Your task to perform on an android device: Set the phone to "Do not disturb". Image 0: 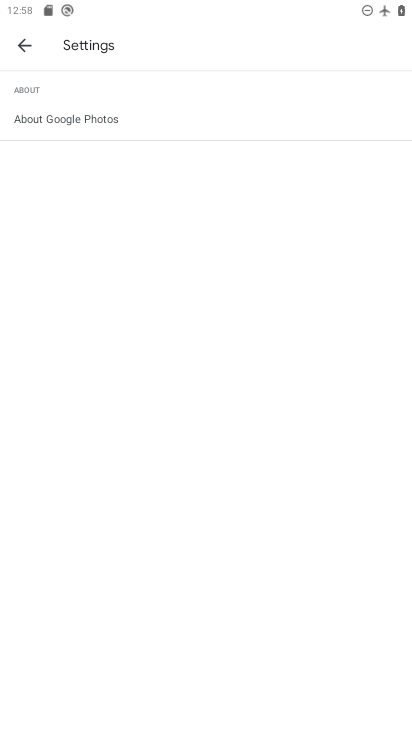
Step 0: press home button
Your task to perform on an android device: Set the phone to "Do not disturb". Image 1: 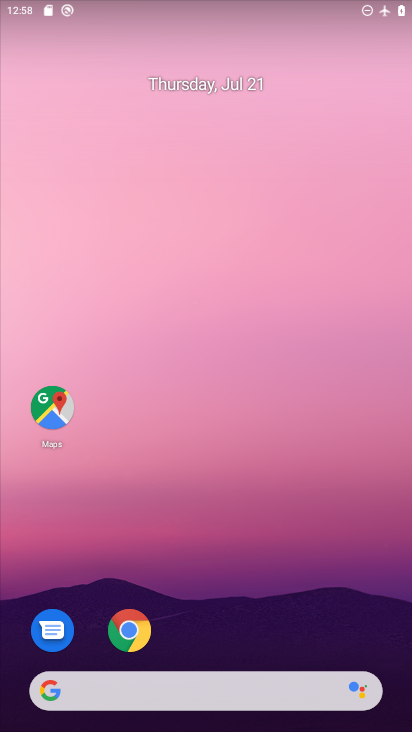
Step 1: drag from (397, 647) to (393, 208)
Your task to perform on an android device: Set the phone to "Do not disturb". Image 2: 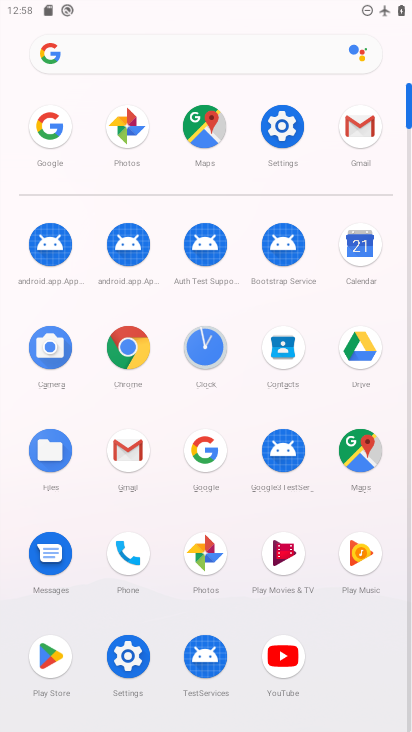
Step 2: click (270, 137)
Your task to perform on an android device: Set the phone to "Do not disturb". Image 3: 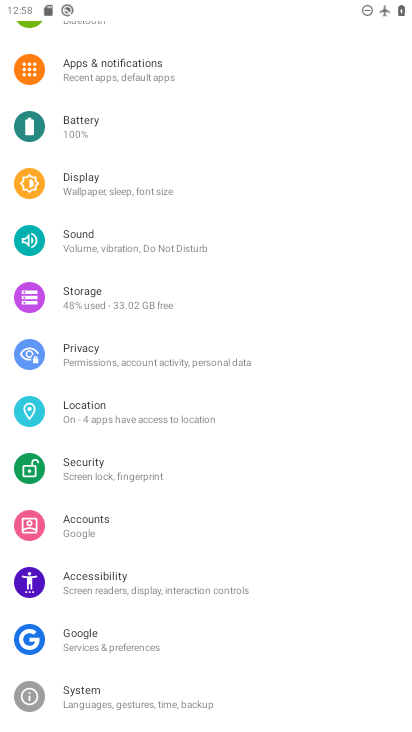
Step 3: click (88, 246)
Your task to perform on an android device: Set the phone to "Do not disturb". Image 4: 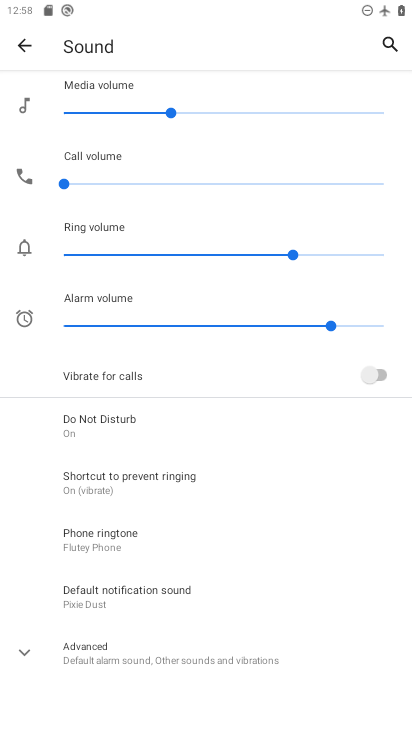
Step 4: click (70, 412)
Your task to perform on an android device: Set the phone to "Do not disturb". Image 5: 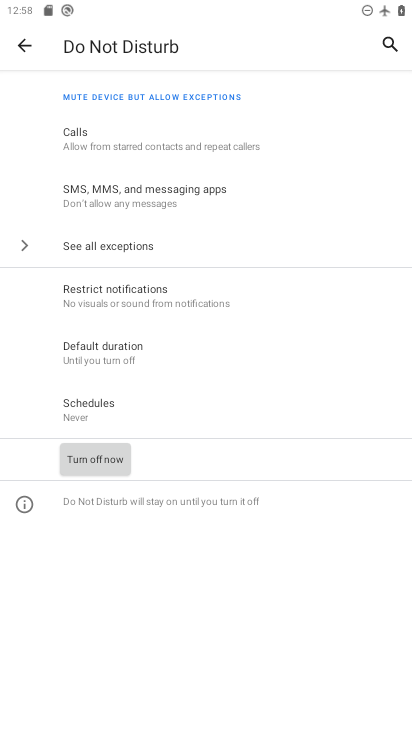
Step 5: task complete